Your task to perform on an android device: snooze an email in the gmail app Image 0: 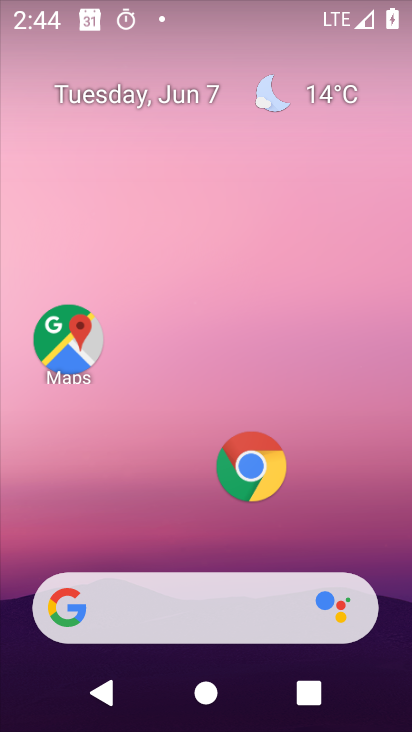
Step 0: drag from (135, 324) to (161, 66)
Your task to perform on an android device: snooze an email in the gmail app Image 1: 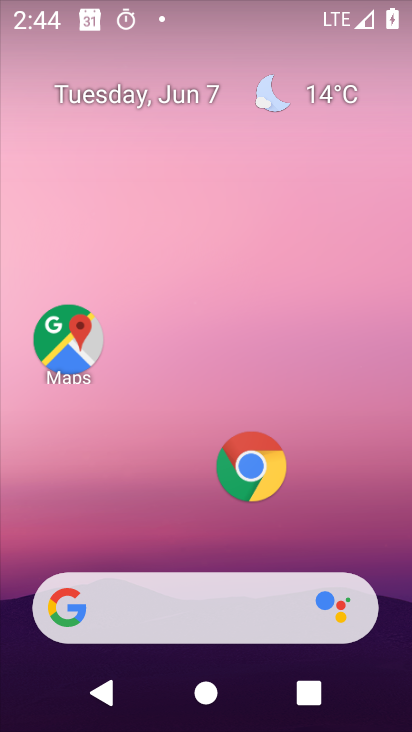
Step 1: drag from (166, 726) to (220, 78)
Your task to perform on an android device: snooze an email in the gmail app Image 2: 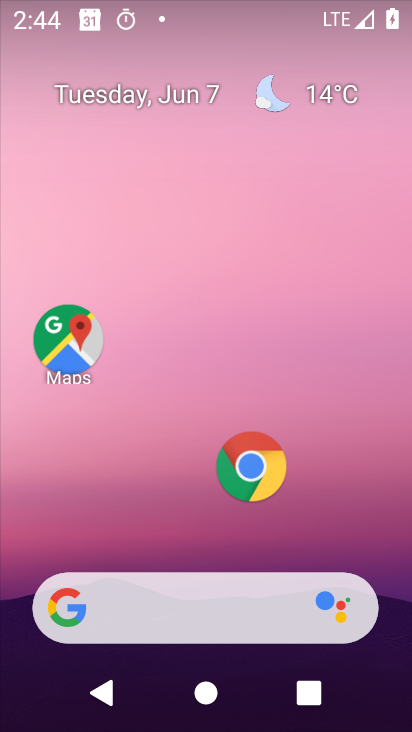
Step 2: drag from (158, 722) to (176, 21)
Your task to perform on an android device: snooze an email in the gmail app Image 3: 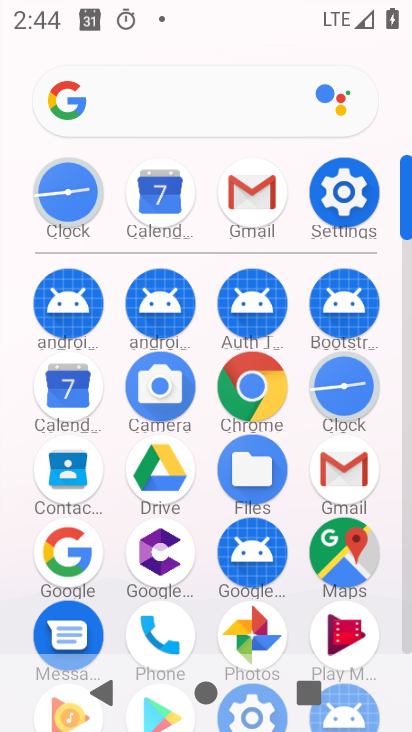
Step 3: click (251, 209)
Your task to perform on an android device: snooze an email in the gmail app Image 4: 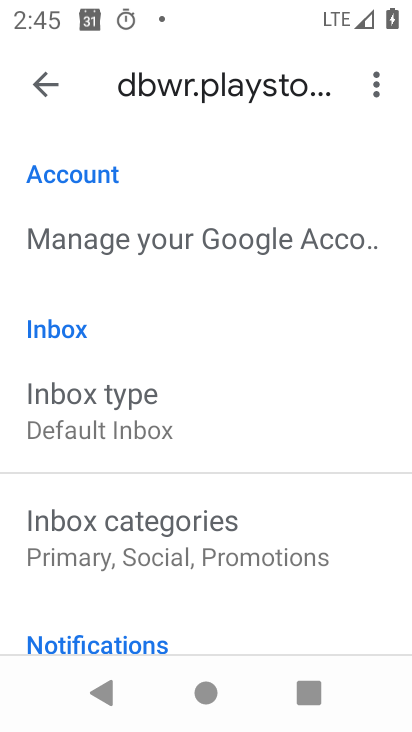
Step 4: click (54, 92)
Your task to perform on an android device: snooze an email in the gmail app Image 5: 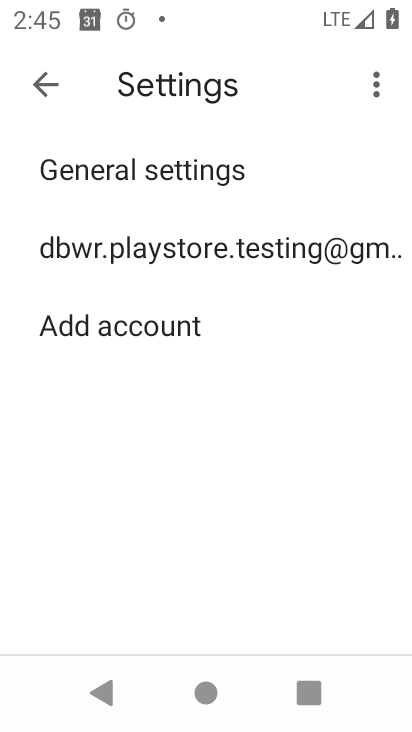
Step 5: click (54, 92)
Your task to perform on an android device: snooze an email in the gmail app Image 6: 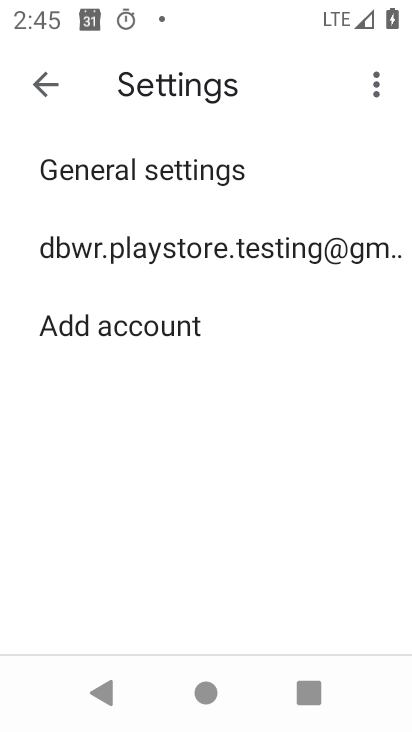
Step 6: click (42, 92)
Your task to perform on an android device: snooze an email in the gmail app Image 7: 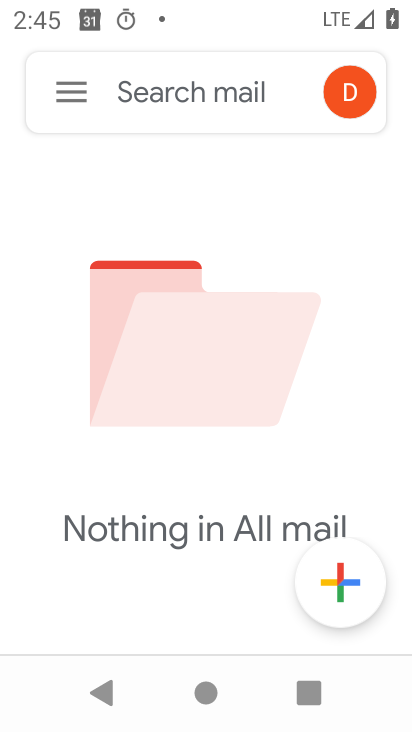
Step 7: click (65, 99)
Your task to perform on an android device: snooze an email in the gmail app Image 8: 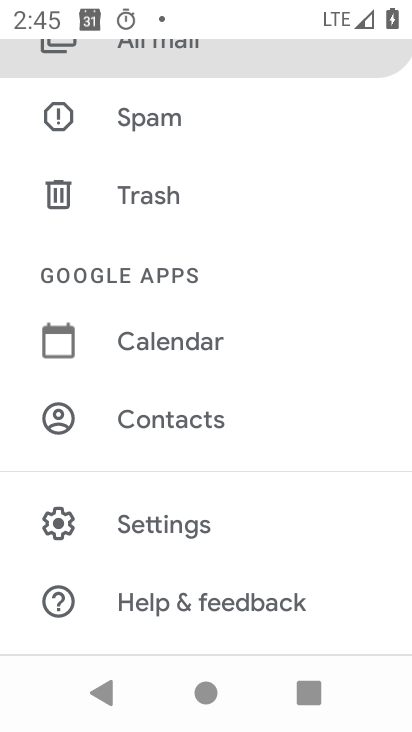
Step 8: click (255, 69)
Your task to perform on an android device: snooze an email in the gmail app Image 9: 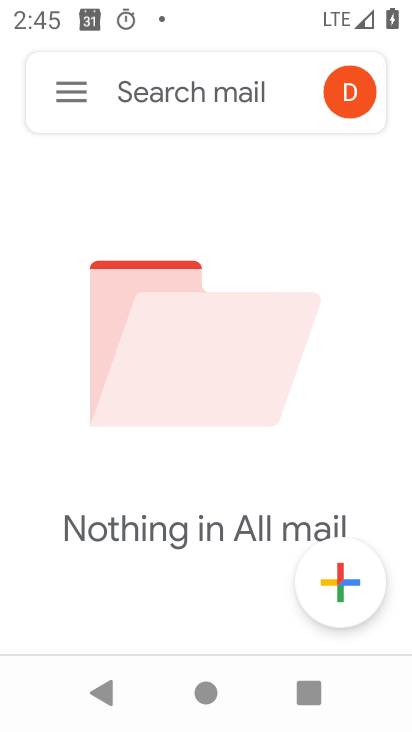
Step 9: click (64, 79)
Your task to perform on an android device: snooze an email in the gmail app Image 10: 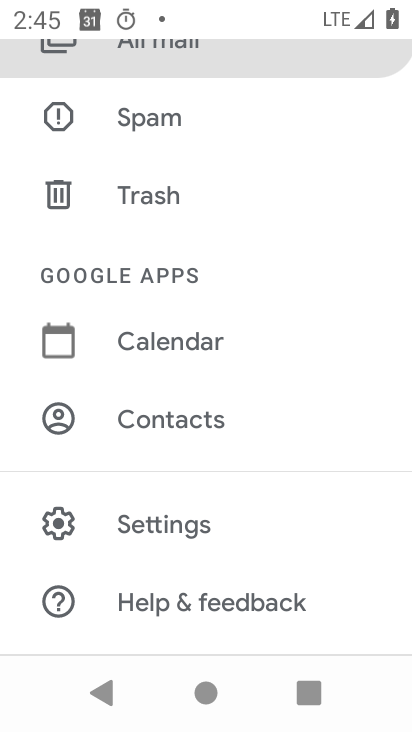
Step 10: drag from (241, 242) to (234, 691)
Your task to perform on an android device: snooze an email in the gmail app Image 11: 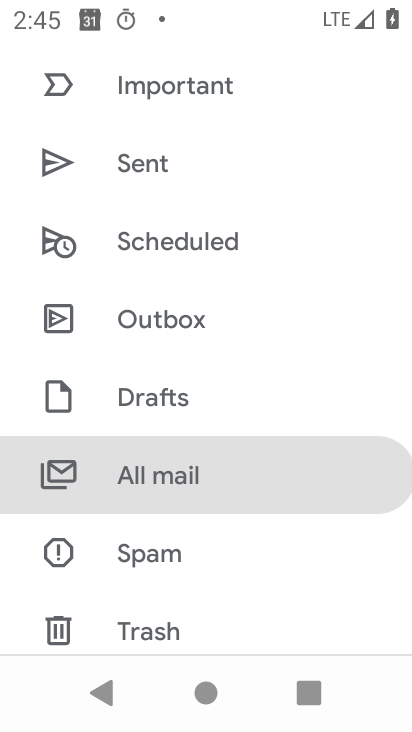
Step 11: drag from (194, 141) to (184, 672)
Your task to perform on an android device: snooze an email in the gmail app Image 12: 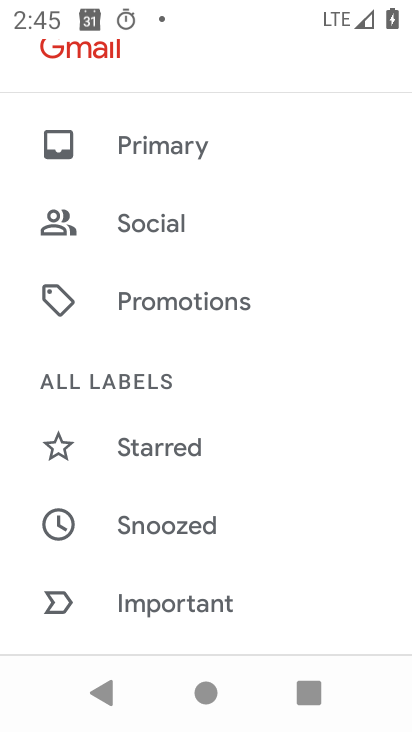
Step 12: click (178, 153)
Your task to perform on an android device: snooze an email in the gmail app Image 13: 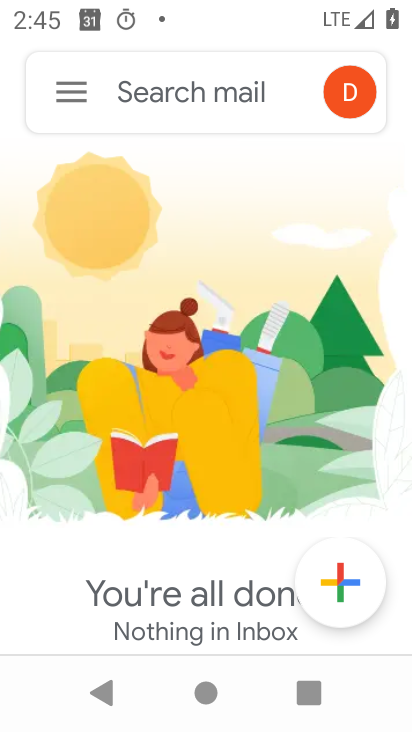
Step 13: task complete